Your task to perform on an android device: Go to Android settings Image 0: 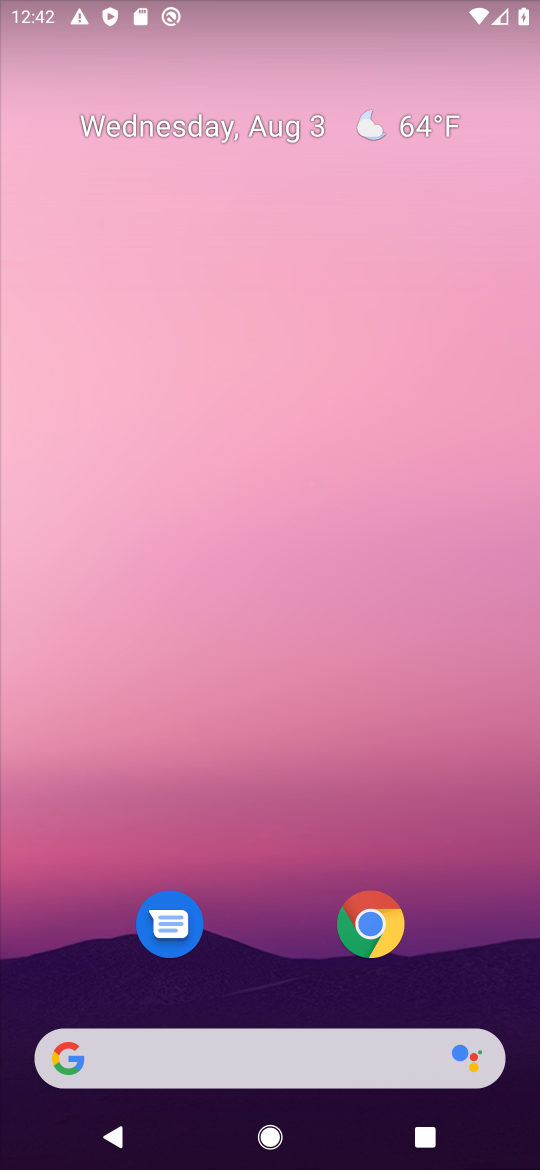
Step 0: drag from (299, 789) to (299, 172)
Your task to perform on an android device: Go to Android settings Image 1: 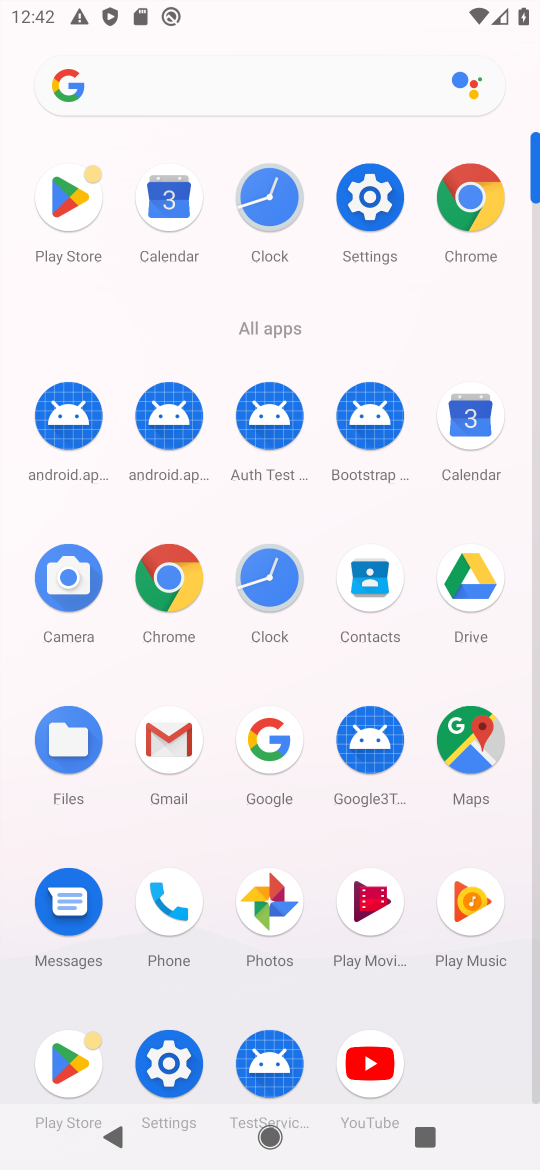
Step 1: click (378, 194)
Your task to perform on an android device: Go to Android settings Image 2: 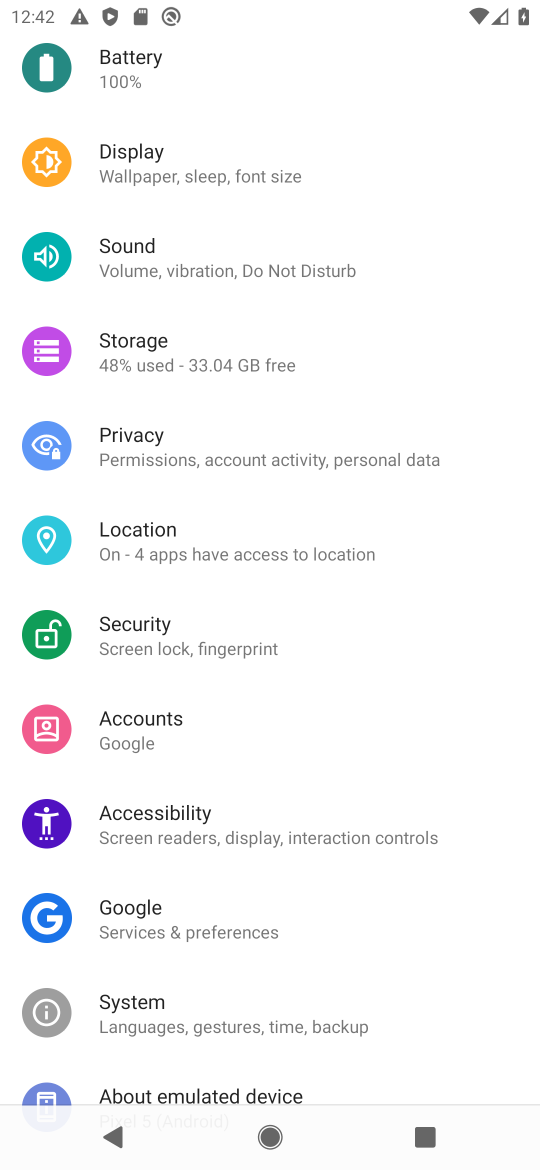
Step 2: drag from (198, 969) to (322, 11)
Your task to perform on an android device: Go to Android settings Image 3: 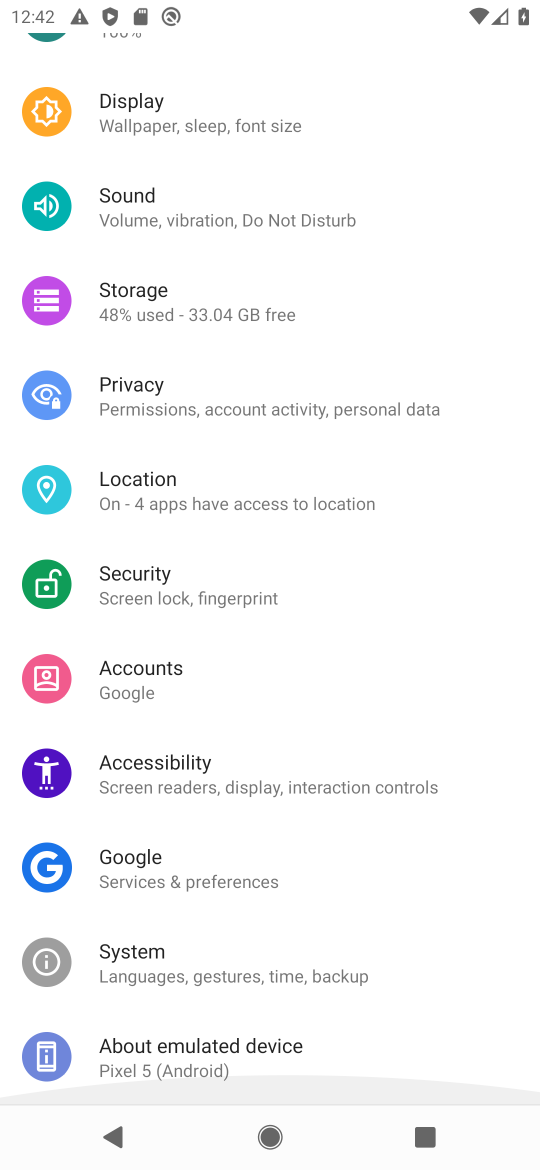
Step 3: drag from (208, 948) to (284, 130)
Your task to perform on an android device: Go to Android settings Image 4: 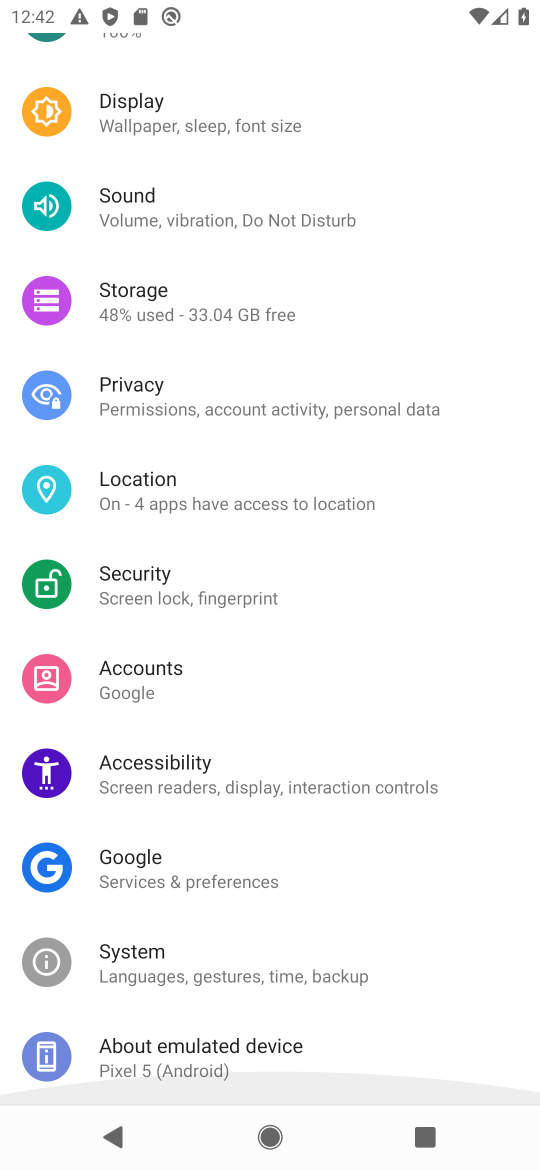
Step 4: click (172, 1068)
Your task to perform on an android device: Go to Android settings Image 5: 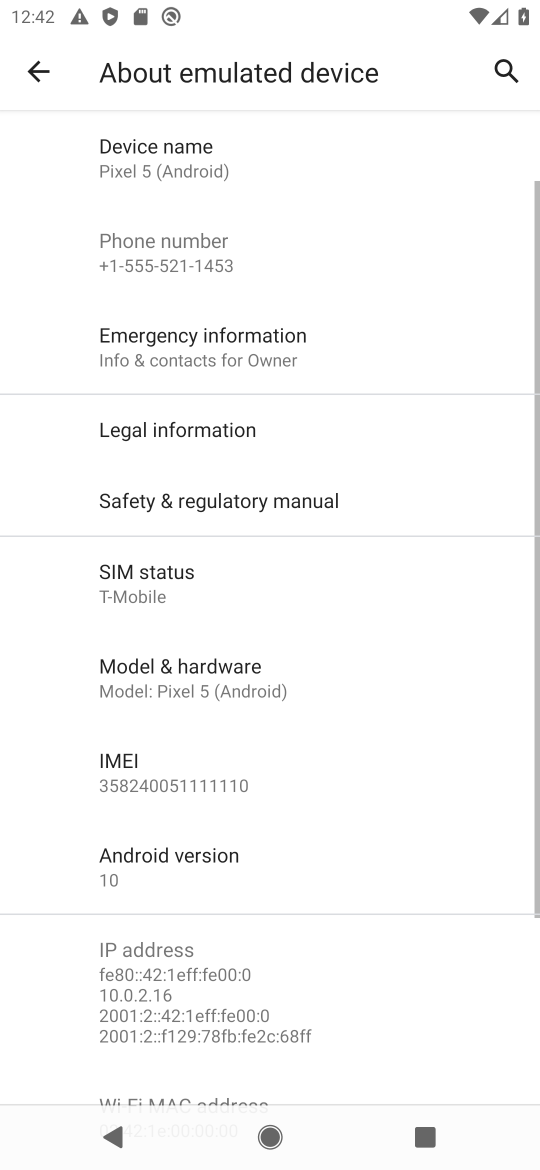
Step 5: click (184, 864)
Your task to perform on an android device: Go to Android settings Image 6: 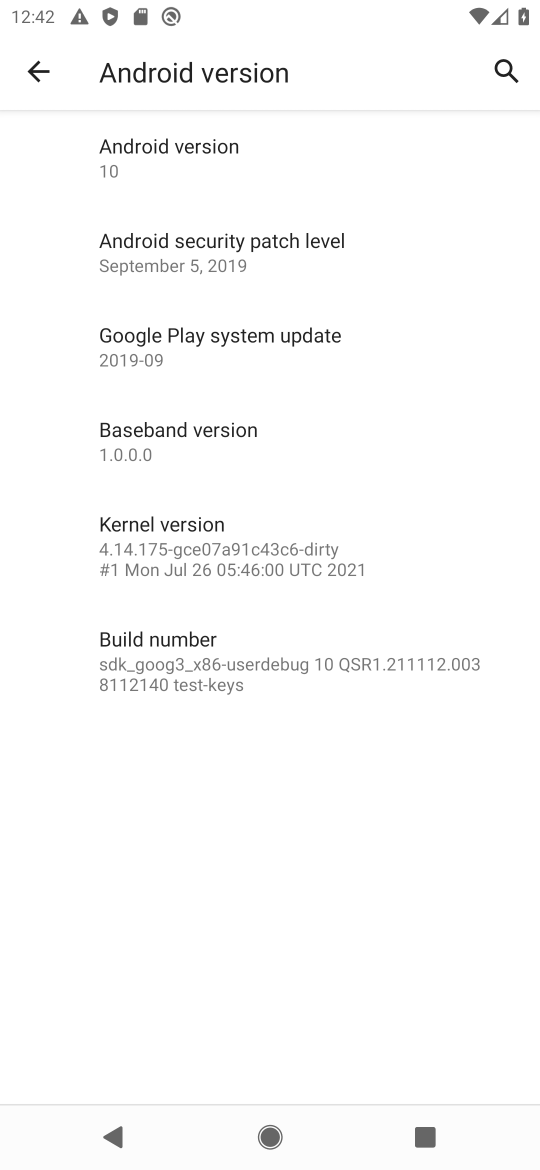
Step 6: task complete